Your task to perform on an android device: Search for seafood restaurants on Google Maps Image 0: 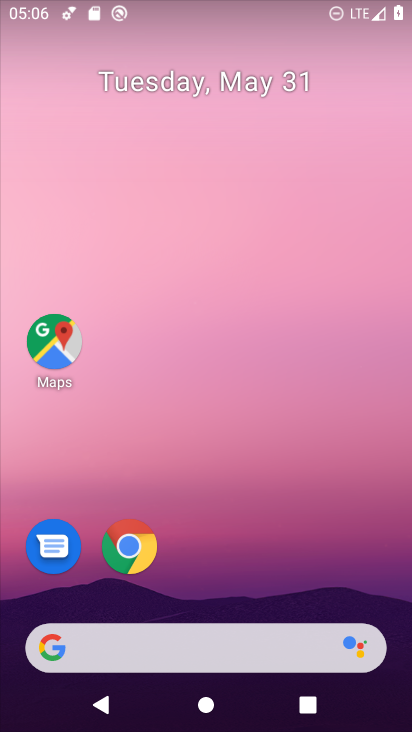
Step 0: press home button
Your task to perform on an android device: Search for seafood restaurants on Google Maps Image 1: 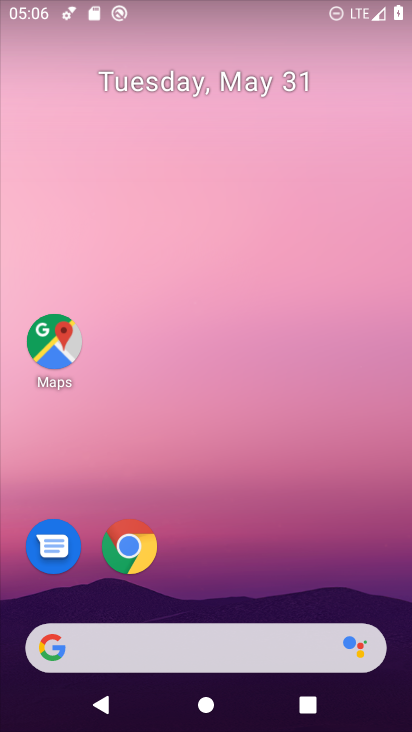
Step 1: click (49, 356)
Your task to perform on an android device: Search for seafood restaurants on Google Maps Image 2: 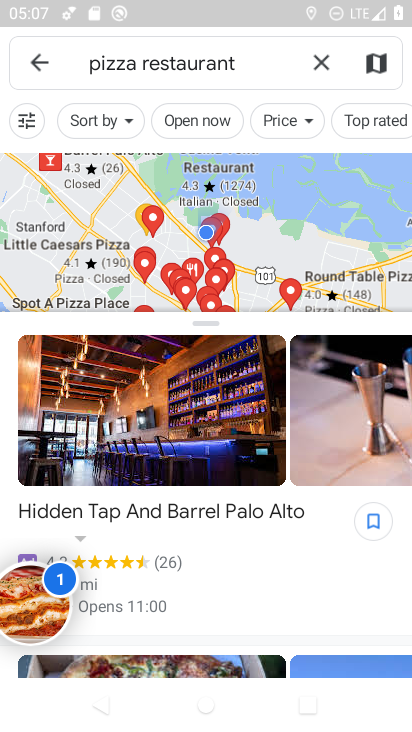
Step 2: click (319, 70)
Your task to perform on an android device: Search for seafood restaurants on Google Maps Image 3: 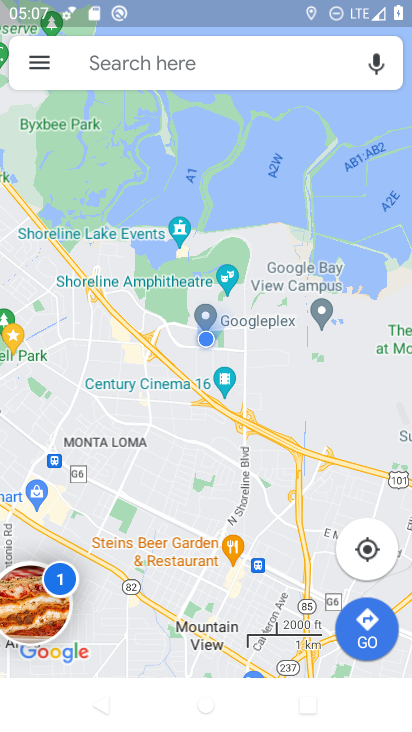
Step 3: click (211, 64)
Your task to perform on an android device: Search for seafood restaurants on Google Maps Image 4: 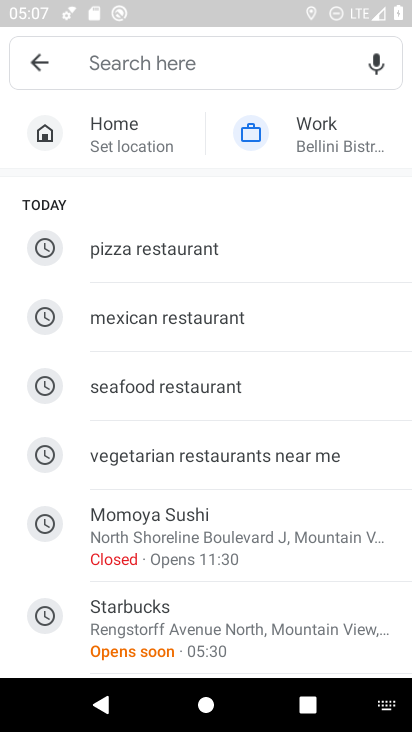
Step 4: click (146, 389)
Your task to perform on an android device: Search for seafood restaurants on Google Maps Image 5: 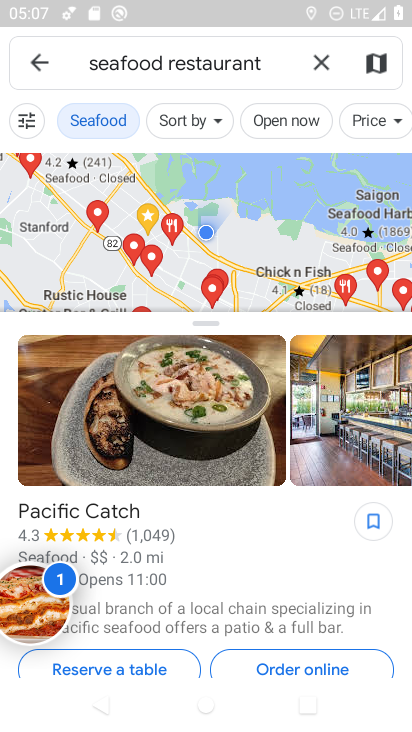
Step 5: task complete